Your task to perform on an android device: check the backup settings in the google photos Image 0: 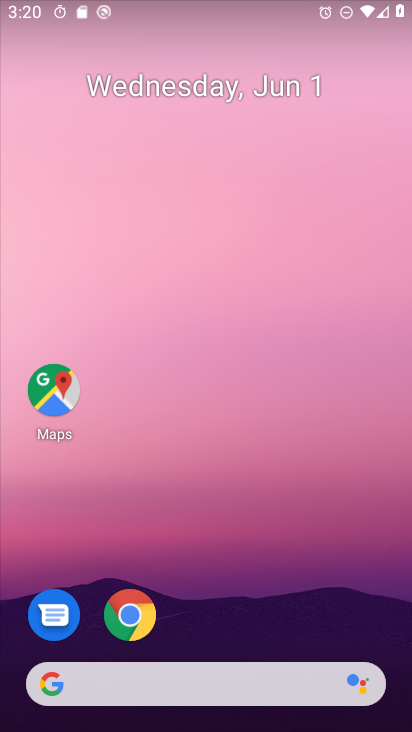
Step 0: drag from (276, 680) to (287, 34)
Your task to perform on an android device: check the backup settings in the google photos Image 1: 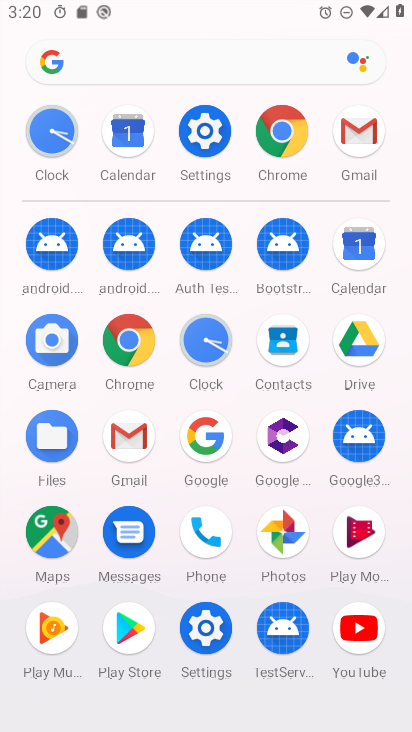
Step 1: click (281, 537)
Your task to perform on an android device: check the backup settings in the google photos Image 2: 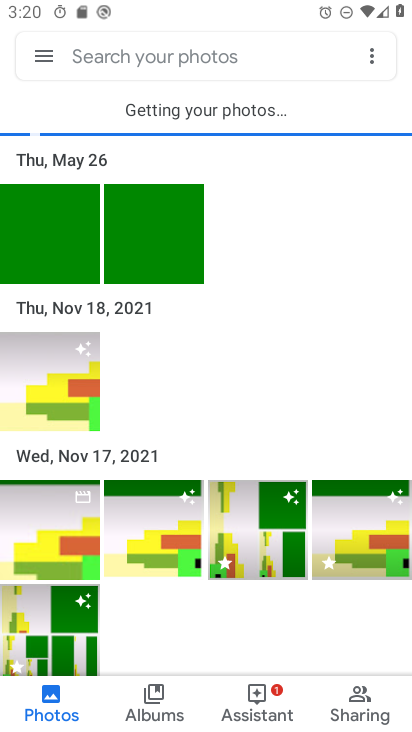
Step 2: click (39, 65)
Your task to perform on an android device: check the backup settings in the google photos Image 3: 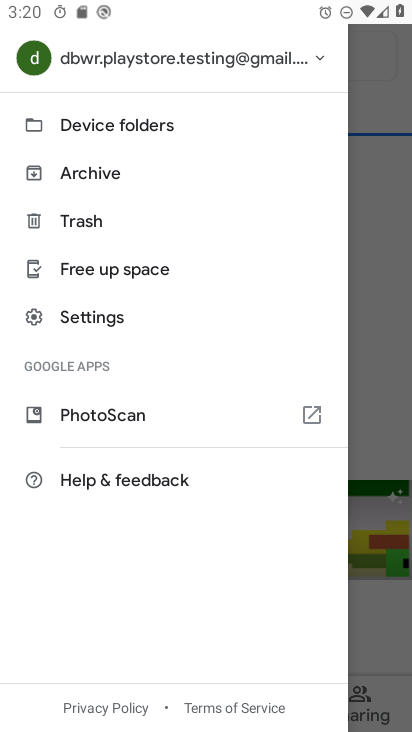
Step 3: click (110, 326)
Your task to perform on an android device: check the backup settings in the google photos Image 4: 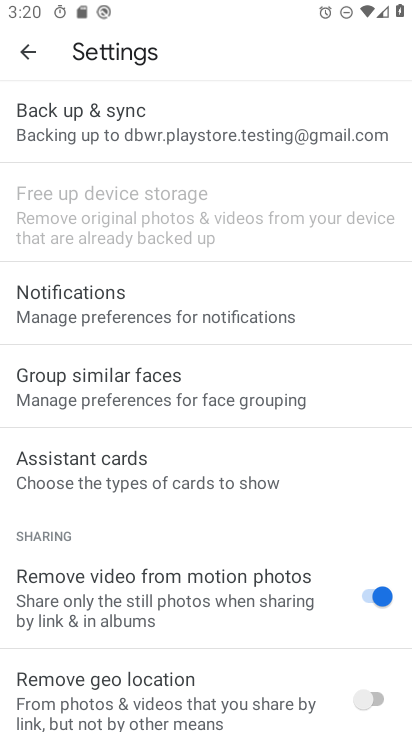
Step 4: click (208, 111)
Your task to perform on an android device: check the backup settings in the google photos Image 5: 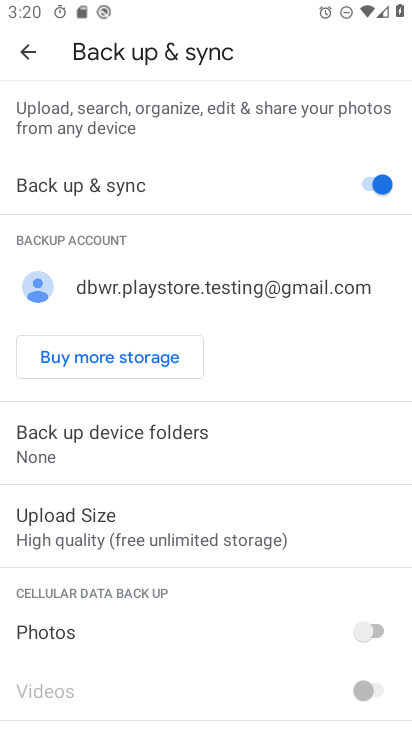
Step 5: task complete